Your task to perform on an android device: Find coffee shops on Maps Image 0: 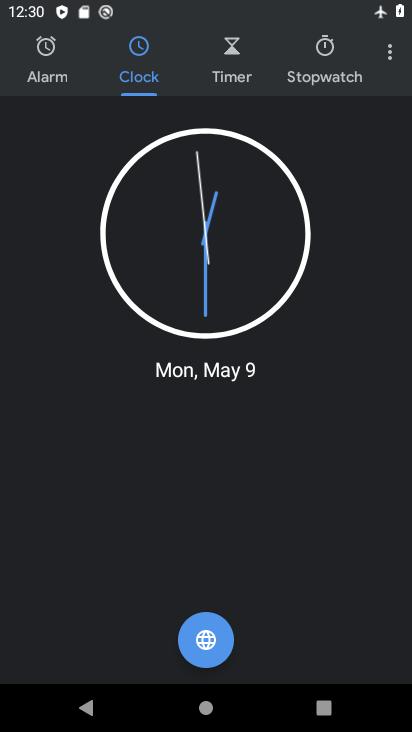
Step 0: press home button
Your task to perform on an android device: Find coffee shops on Maps Image 1: 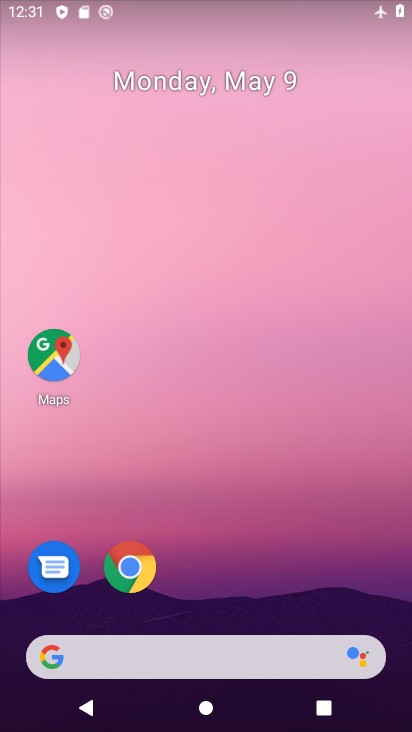
Step 1: click (52, 371)
Your task to perform on an android device: Find coffee shops on Maps Image 2: 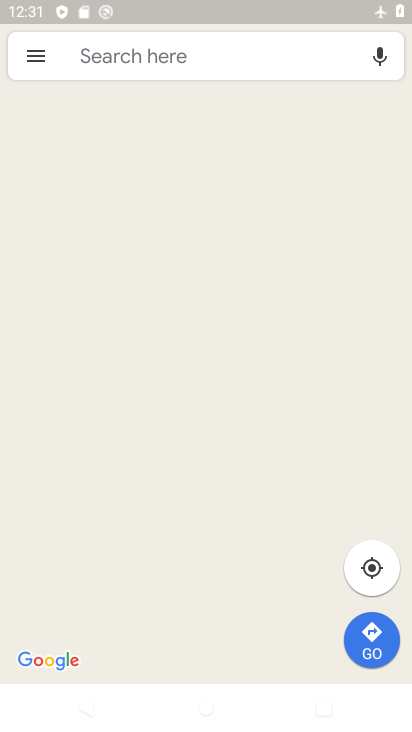
Step 2: click (200, 62)
Your task to perform on an android device: Find coffee shops on Maps Image 3: 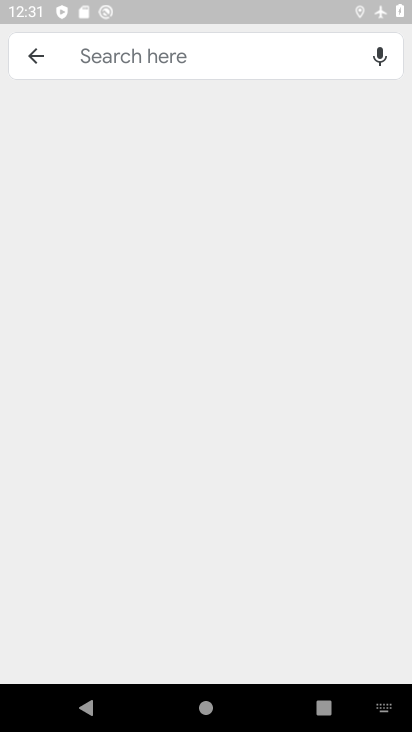
Step 3: type "coffee shops"
Your task to perform on an android device: Find coffee shops on Maps Image 4: 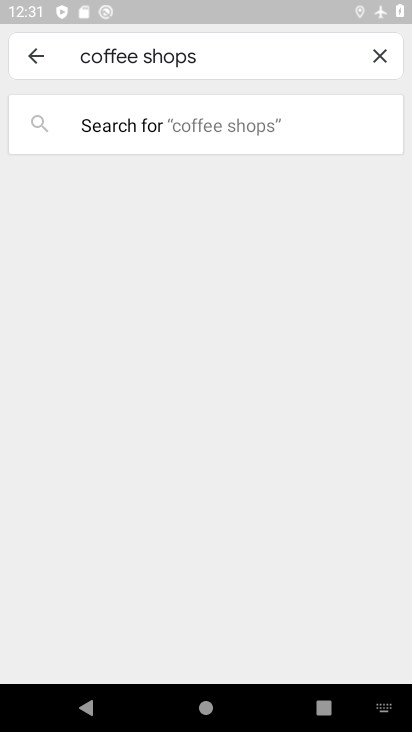
Step 4: click (229, 132)
Your task to perform on an android device: Find coffee shops on Maps Image 5: 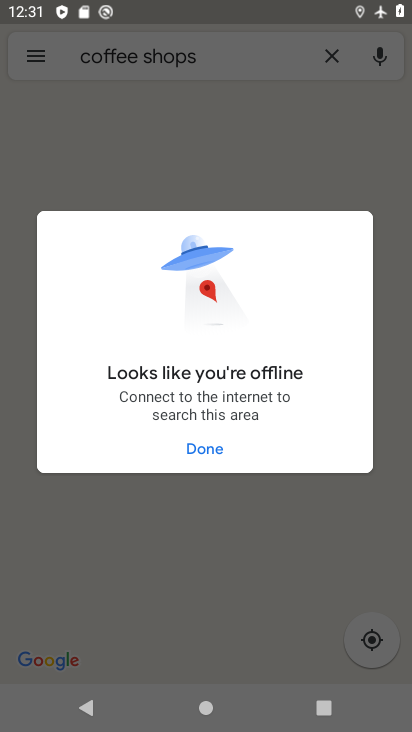
Step 5: click (200, 456)
Your task to perform on an android device: Find coffee shops on Maps Image 6: 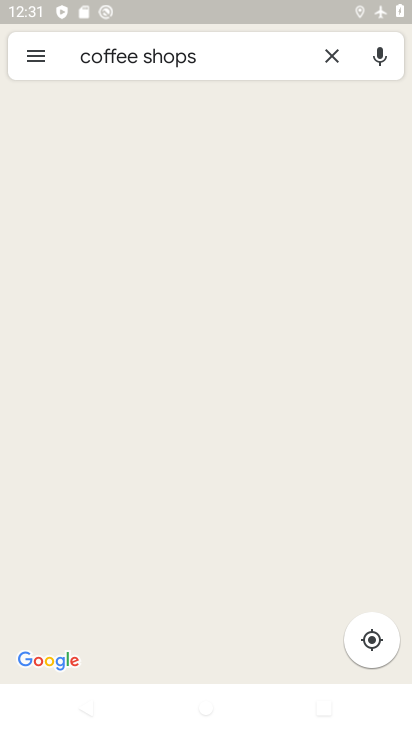
Step 6: task complete